Your task to perform on an android device: Open CNN.com Image 0: 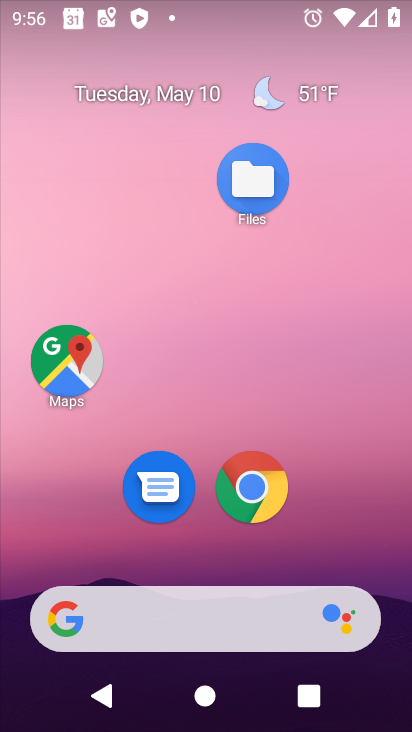
Step 0: drag from (196, 541) to (212, 43)
Your task to perform on an android device: Open CNN.com Image 1: 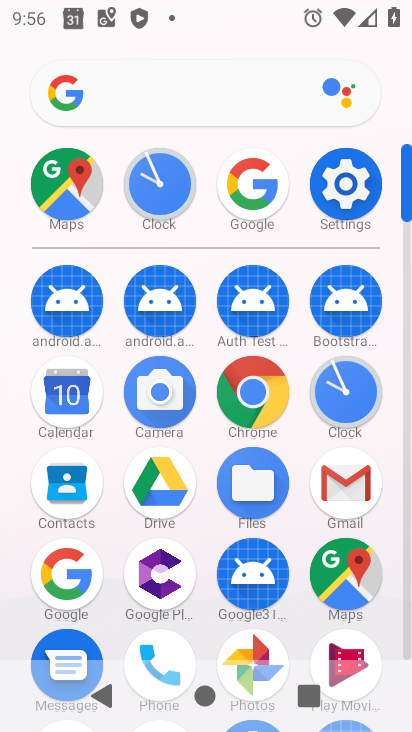
Step 1: click (257, 177)
Your task to perform on an android device: Open CNN.com Image 2: 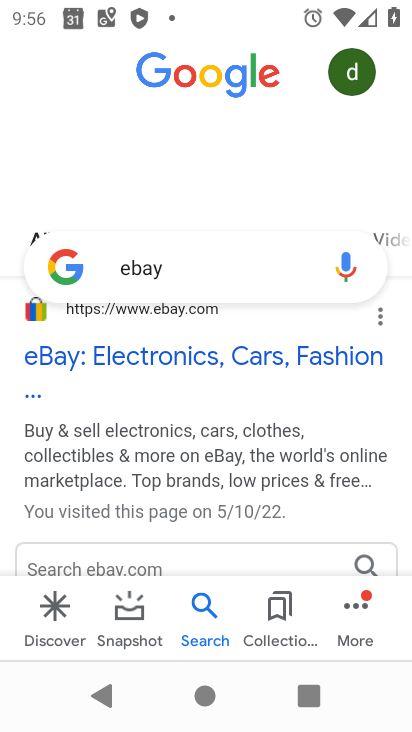
Step 2: click (224, 269)
Your task to perform on an android device: Open CNN.com Image 3: 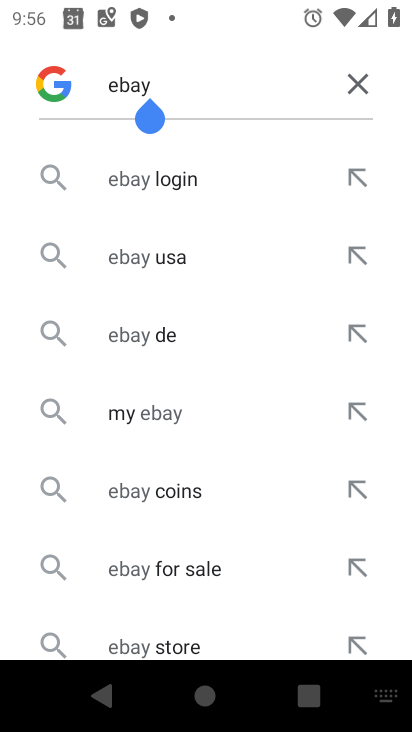
Step 3: click (363, 86)
Your task to perform on an android device: Open CNN.com Image 4: 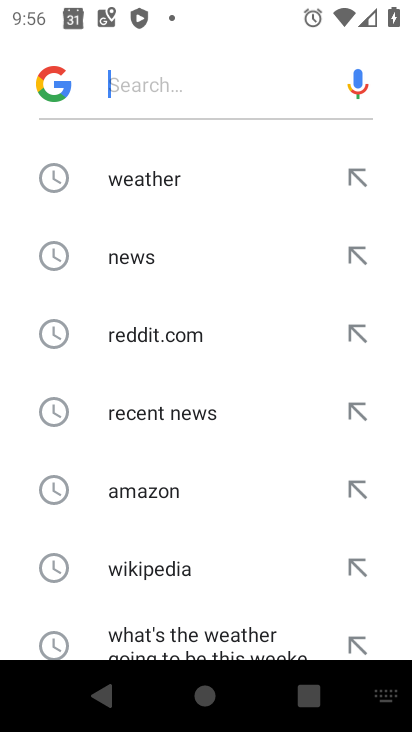
Step 4: drag from (213, 472) to (214, 54)
Your task to perform on an android device: Open CNN.com Image 5: 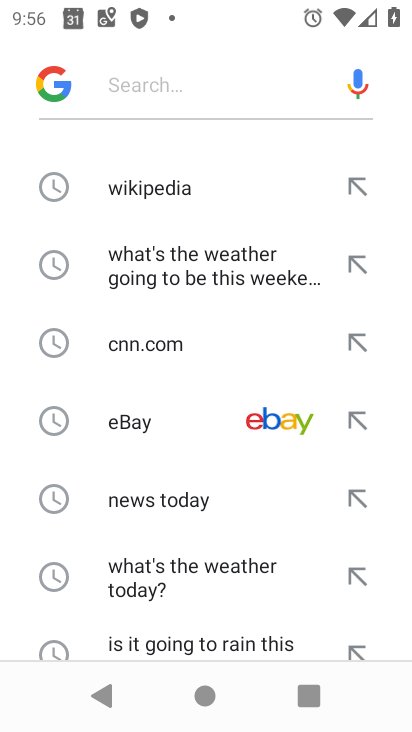
Step 5: click (165, 332)
Your task to perform on an android device: Open CNN.com Image 6: 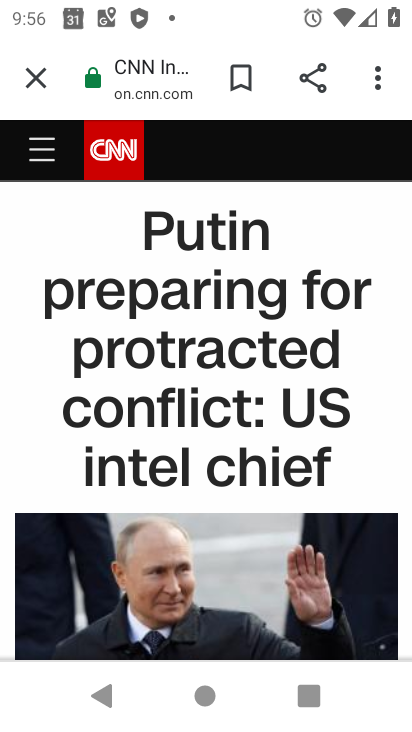
Step 6: task complete